Your task to perform on an android device: uninstall "WhatsApp Messenger" Image 0: 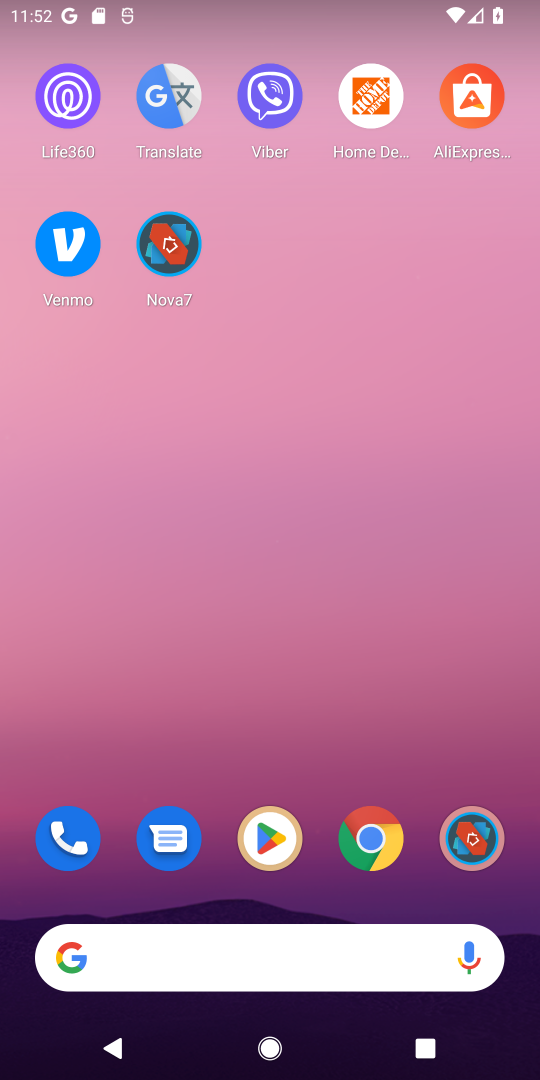
Step 0: click (256, 835)
Your task to perform on an android device: uninstall "WhatsApp Messenger" Image 1: 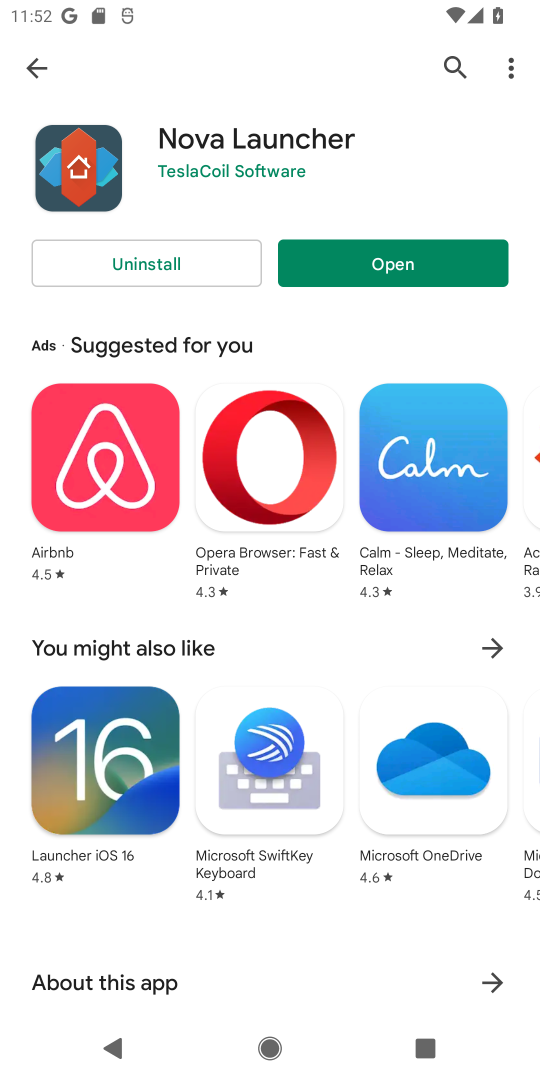
Step 1: click (461, 54)
Your task to perform on an android device: uninstall "WhatsApp Messenger" Image 2: 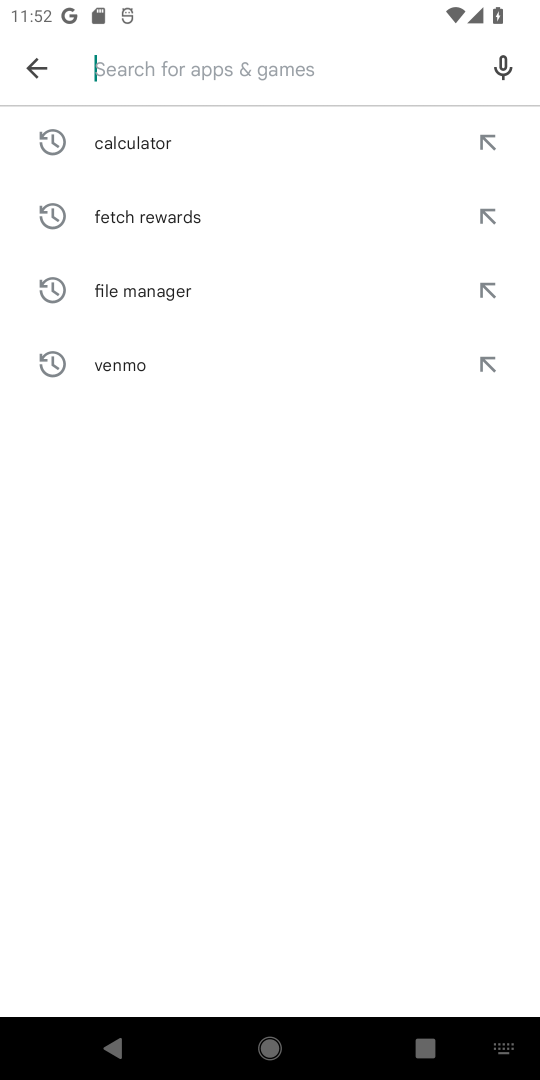
Step 2: type "WhatsApp Messenger"
Your task to perform on an android device: uninstall "WhatsApp Messenger" Image 3: 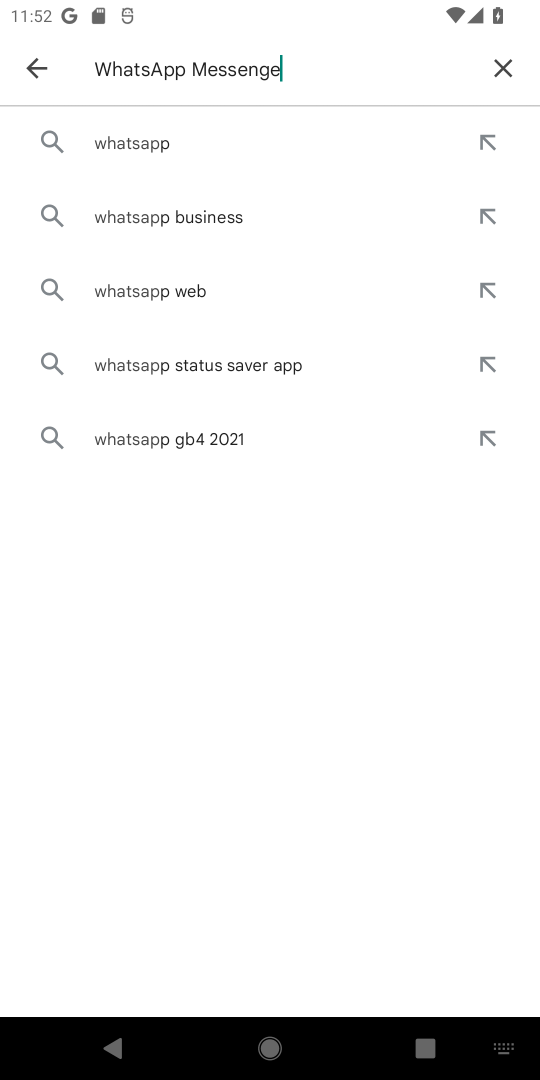
Step 3: type ""
Your task to perform on an android device: uninstall "WhatsApp Messenger" Image 4: 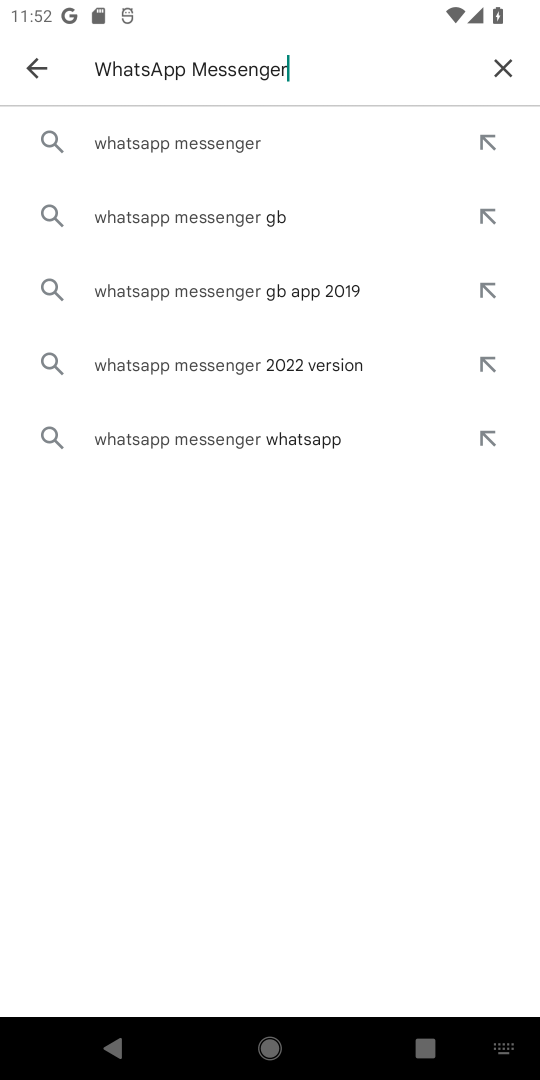
Step 4: click (220, 146)
Your task to perform on an android device: uninstall "WhatsApp Messenger" Image 5: 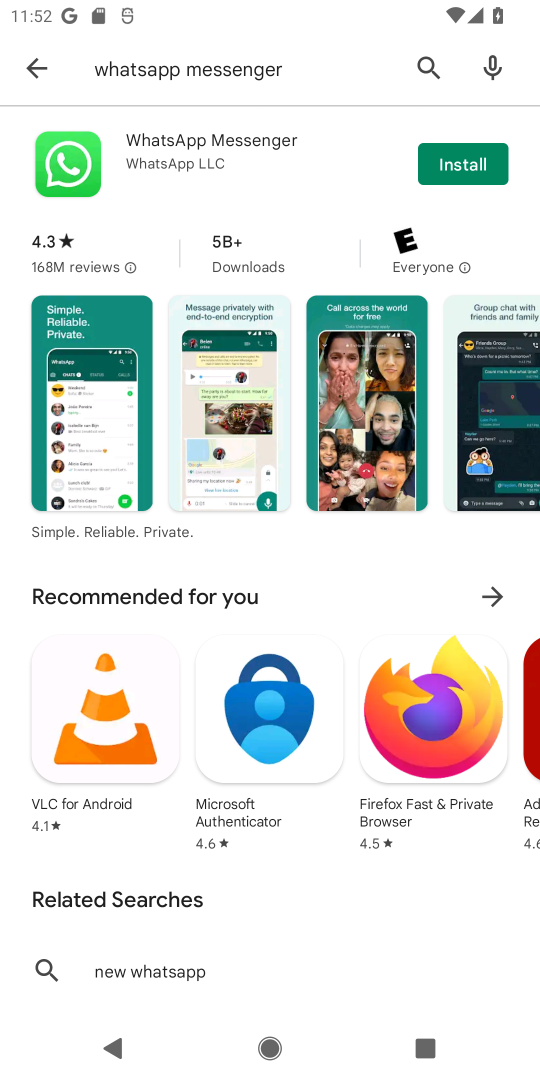
Step 5: click (233, 174)
Your task to perform on an android device: uninstall "WhatsApp Messenger" Image 6: 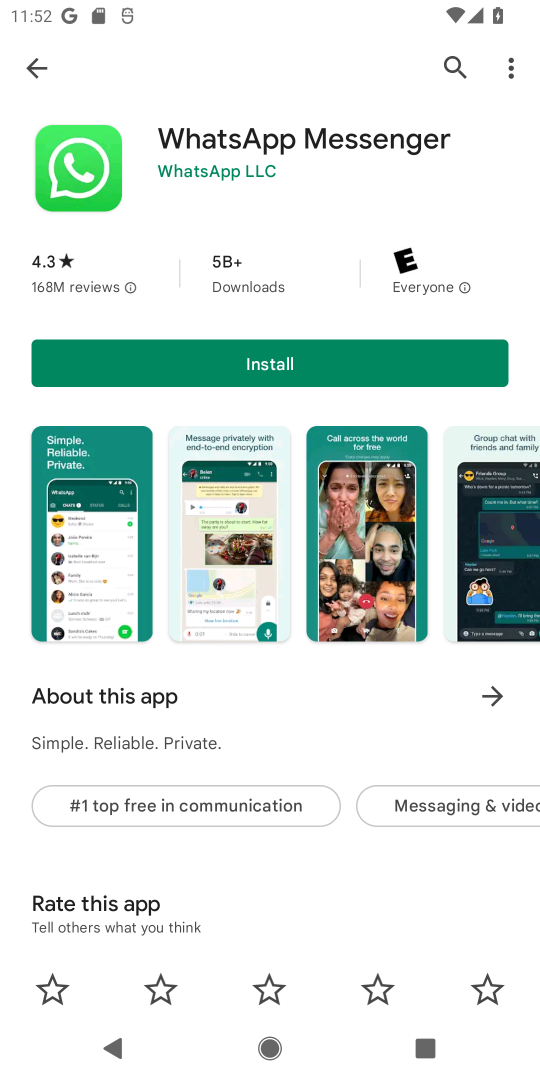
Step 6: task complete